Your task to perform on an android device: Go to location settings Image 0: 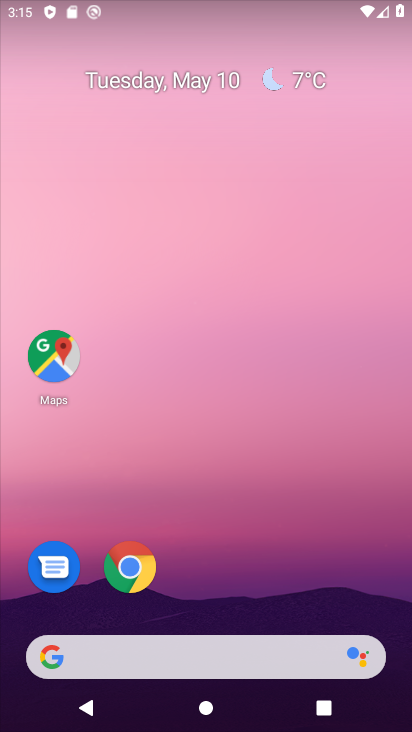
Step 0: drag from (223, 581) to (230, 91)
Your task to perform on an android device: Go to location settings Image 1: 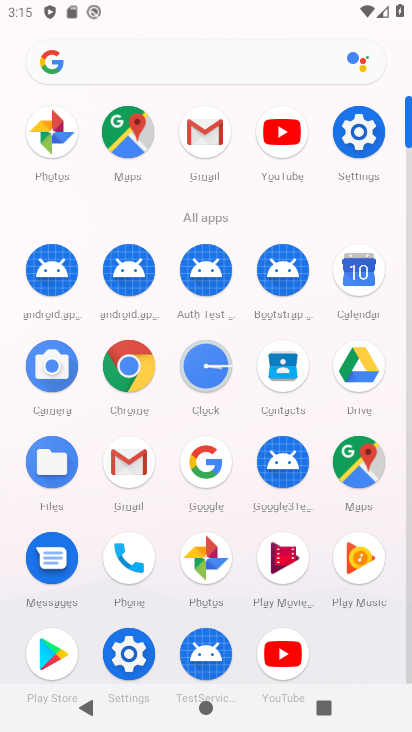
Step 1: click (127, 652)
Your task to perform on an android device: Go to location settings Image 2: 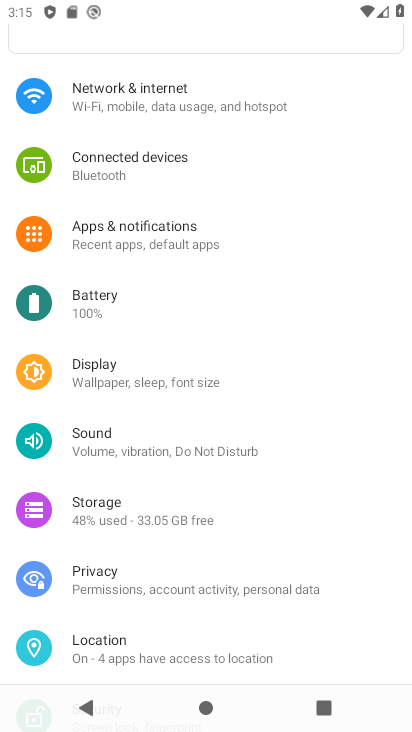
Step 2: click (97, 644)
Your task to perform on an android device: Go to location settings Image 3: 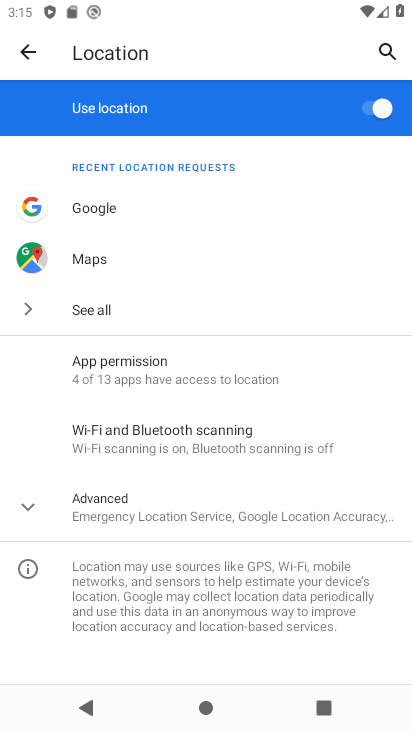
Step 3: task complete